Your task to perform on an android device: Is it going to rain this weekend? Image 0: 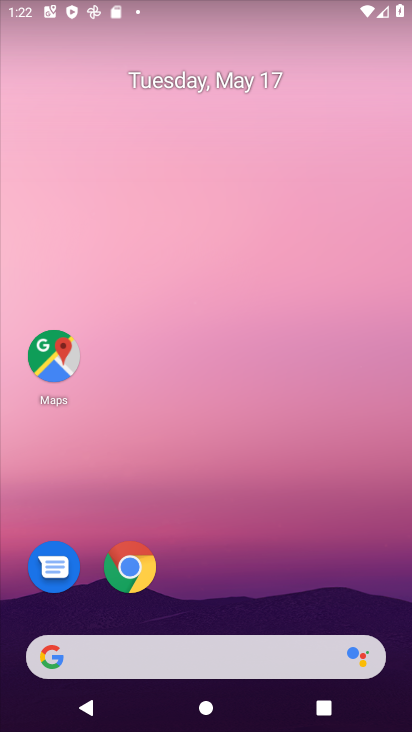
Step 0: drag from (10, 209) to (343, 242)
Your task to perform on an android device: Is it going to rain this weekend? Image 1: 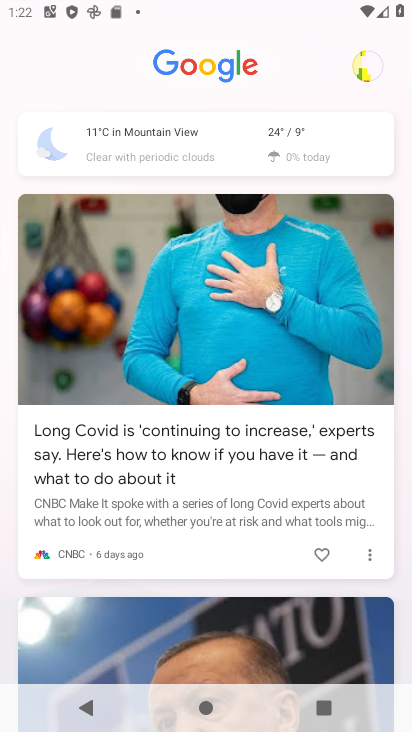
Step 1: click (295, 139)
Your task to perform on an android device: Is it going to rain this weekend? Image 2: 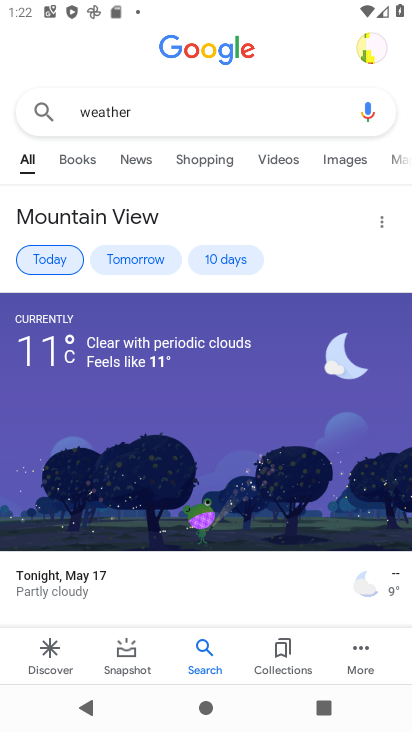
Step 2: click (218, 264)
Your task to perform on an android device: Is it going to rain this weekend? Image 3: 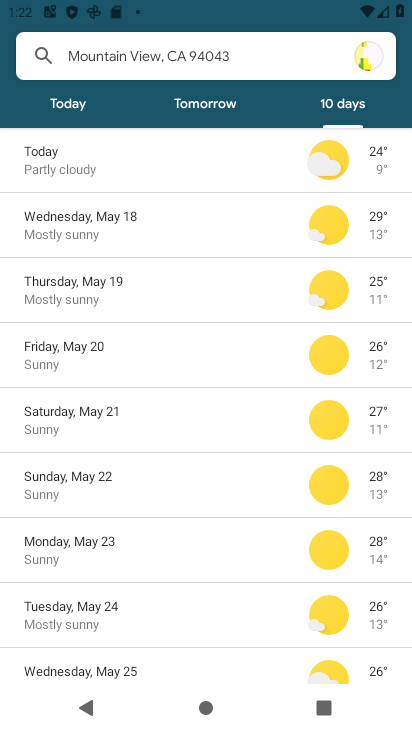
Step 3: task complete